Your task to perform on an android device: turn off priority inbox in the gmail app Image 0: 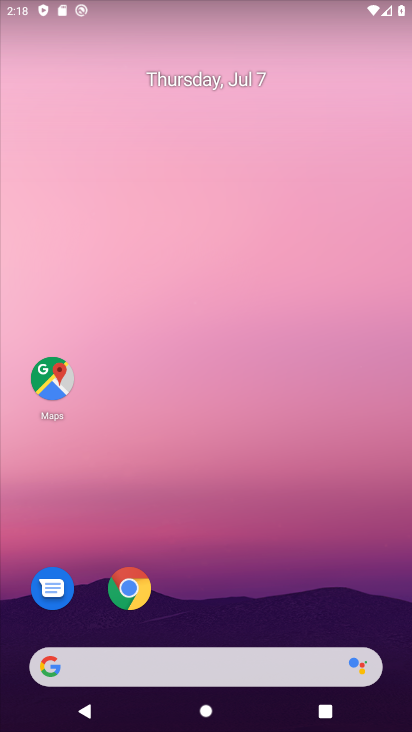
Step 0: drag from (199, 620) to (314, 92)
Your task to perform on an android device: turn off priority inbox in the gmail app Image 1: 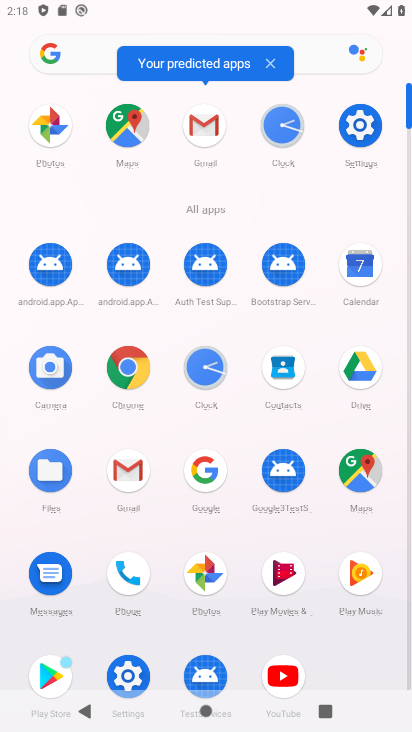
Step 1: click (119, 487)
Your task to perform on an android device: turn off priority inbox in the gmail app Image 2: 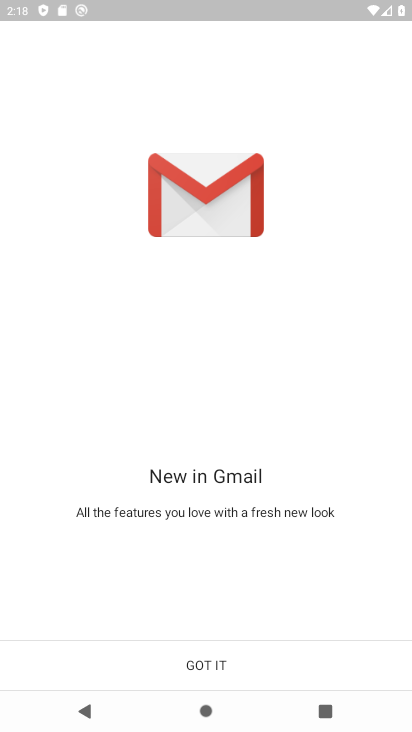
Step 2: click (206, 671)
Your task to perform on an android device: turn off priority inbox in the gmail app Image 3: 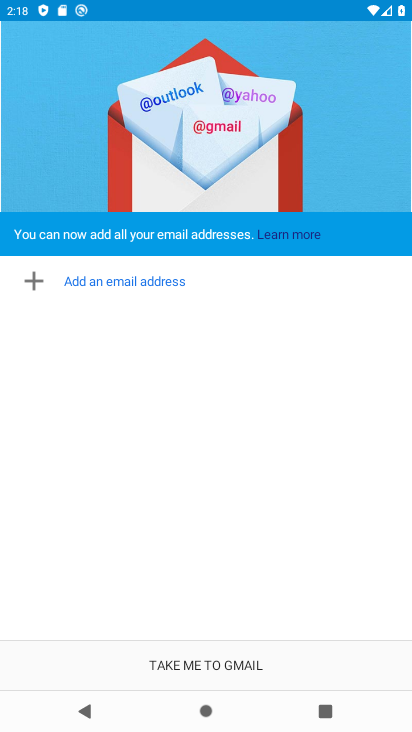
Step 3: click (206, 671)
Your task to perform on an android device: turn off priority inbox in the gmail app Image 4: 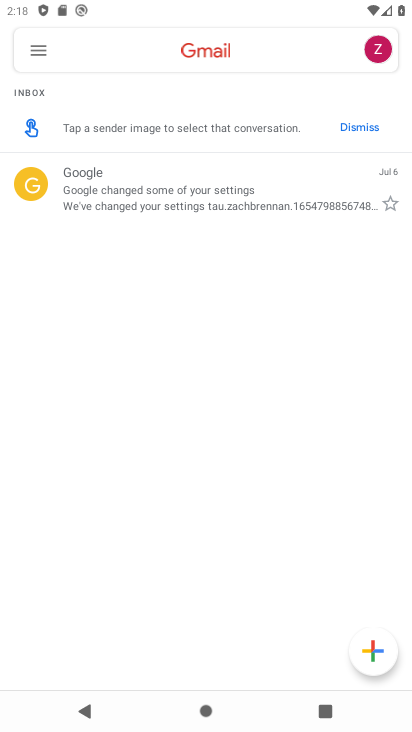
Step 4: click (39, 49)
Your task to perform on an android device: turn off priority inbox in the gmail app Image 5: 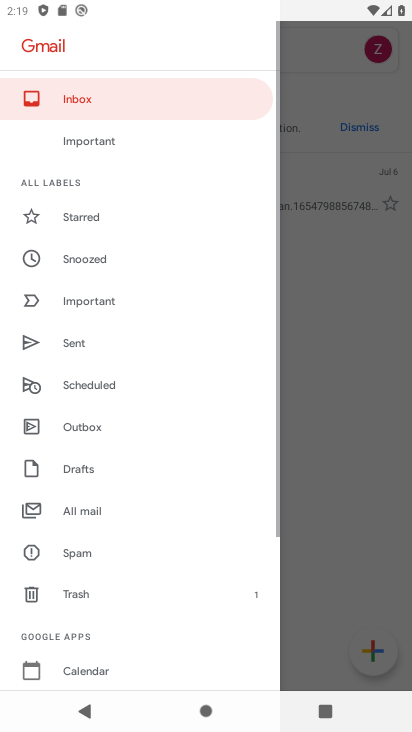
Step 5: drag from (128, 624) to (225, 237)
Your task to perform on an android device: turn off priority inbox in the gmail app Image 6: 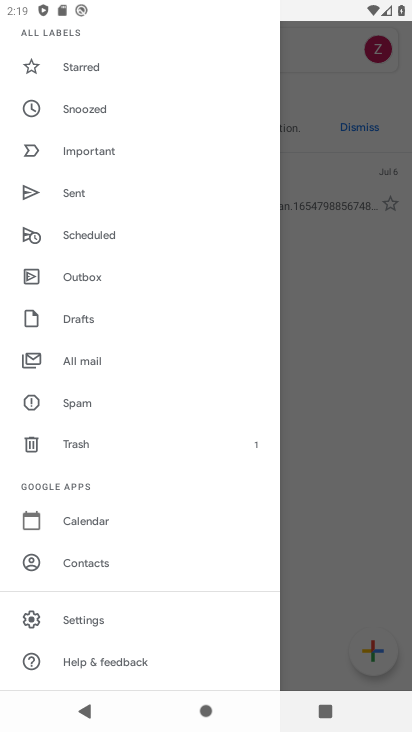
Step 6: click (133, 620)
Your task to perform on an android device: turn off priority inbox in the gmail app Image 7: 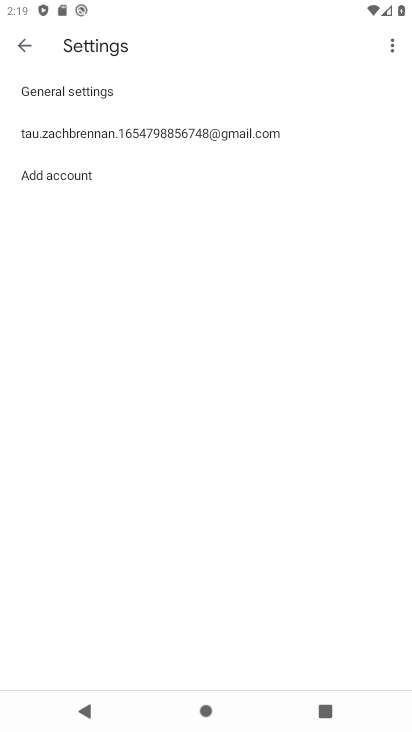
Step 7: click (237, 144)
Your task to perform on an android device: turn off priority inbox in the gmail app Image 8: 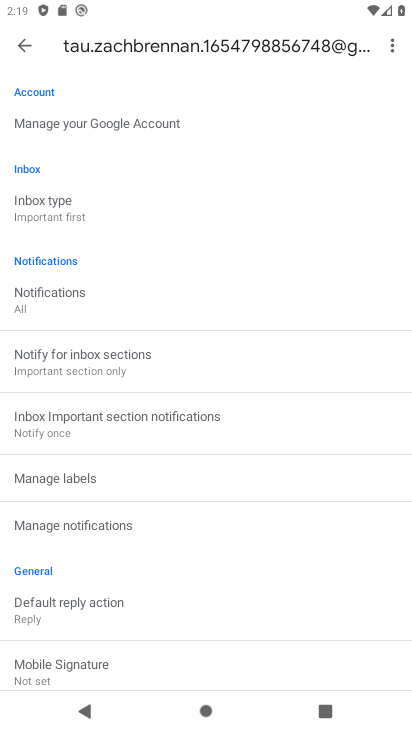
Step 8: click (104, 213)
Your task to perform on an android device: turn off priority inbox in the gmail app Image 9: 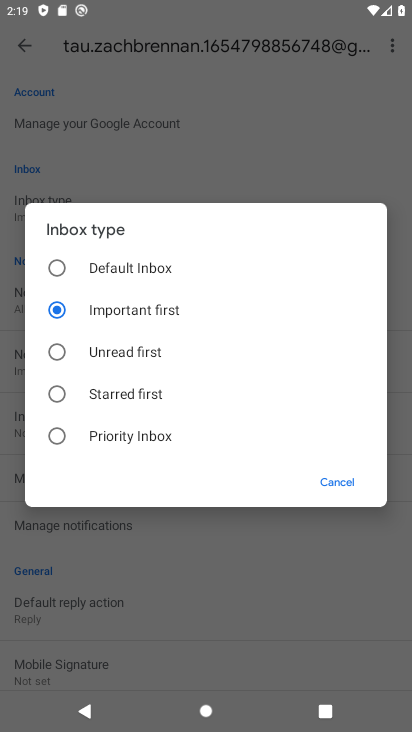
Step 9: task complete